Your task to perform on an android device: open app "Google Play Games" (install if not already installed) Image 0: 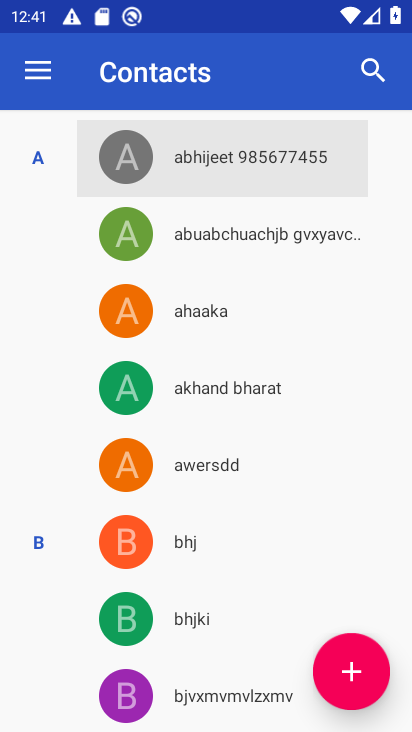
Step 0: press home button
Your task to perform on an android device: open app "Google Play Games" (install if not already installed) Image 1: 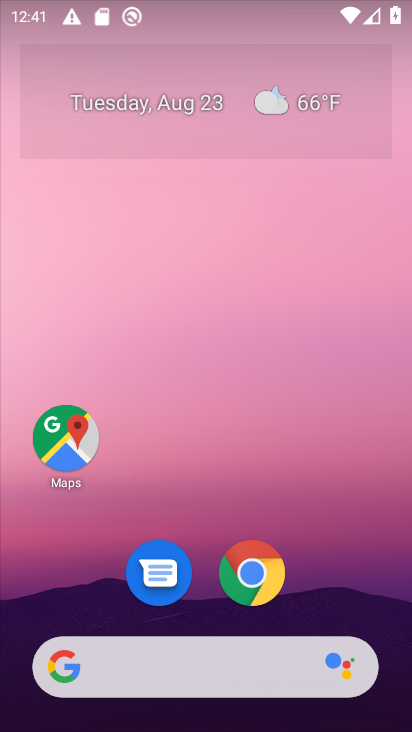
Step 1: drag from (203, 452) to (233, 167)
Your task to perform on an android device: open app "Google Play Games" (install if not already installed) Image 2: 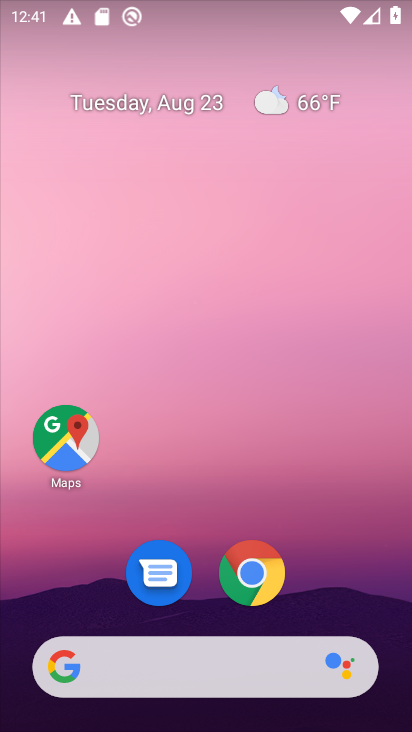
Step 2: drag from (213, 467) to (216, 55)
Your task to perform on an android device: open app "Google Play Games" (install if not already installed) Image 3: 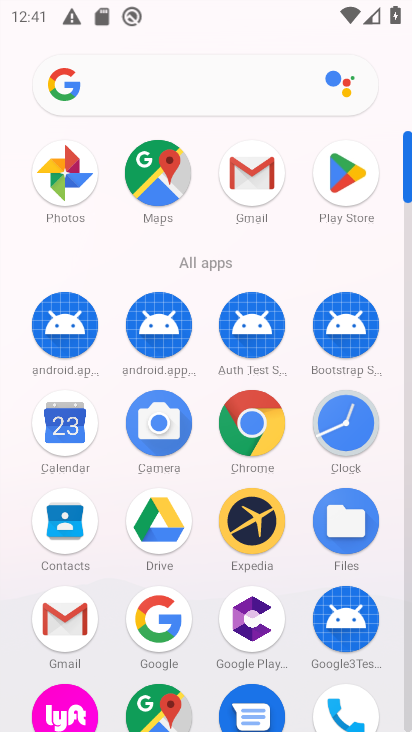
Step 3: click (343, 163)
Your task to perform on an android device: open app "Google Play Games" (install if not already installed) Image 4: 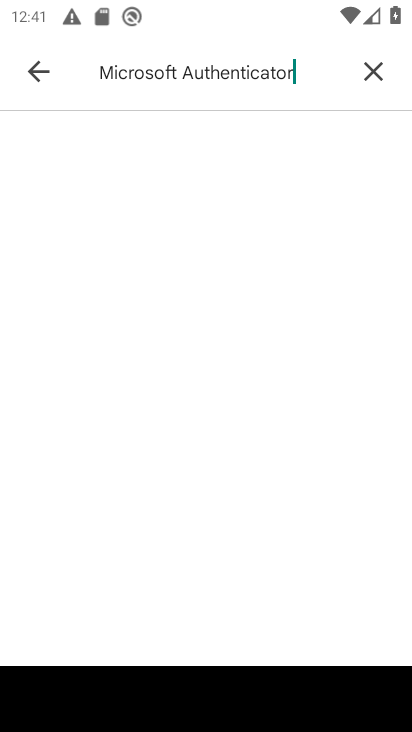
Step 4: click (376, 80)
Your task to perform on an android device: open app "Google Play Games" (install if not already installed) Image 5: 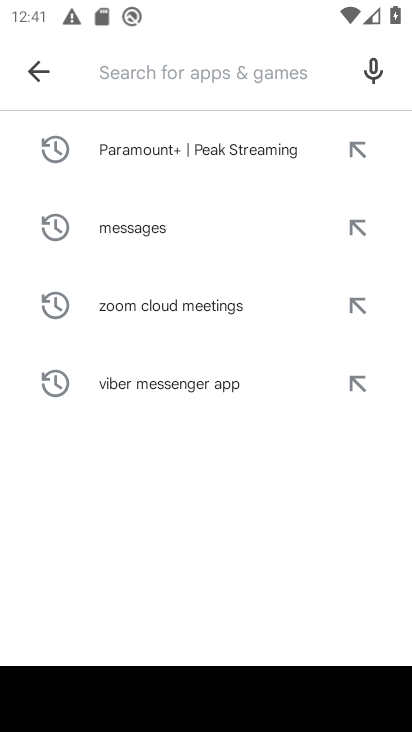
Step 5: type "Google Play Games"
Your task to perform on an android device: open app "Google Play Games" (install if not already installed) Image 6: 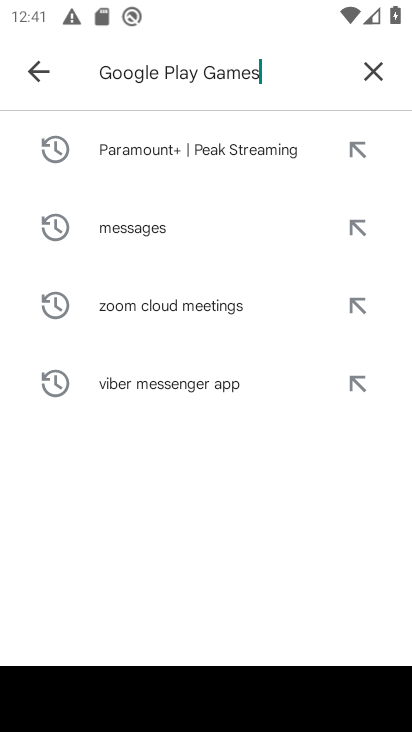
Step 6: type ""
Your task to perform on an android device: open app "Google Play Games" (install if not already installed) Image 7: 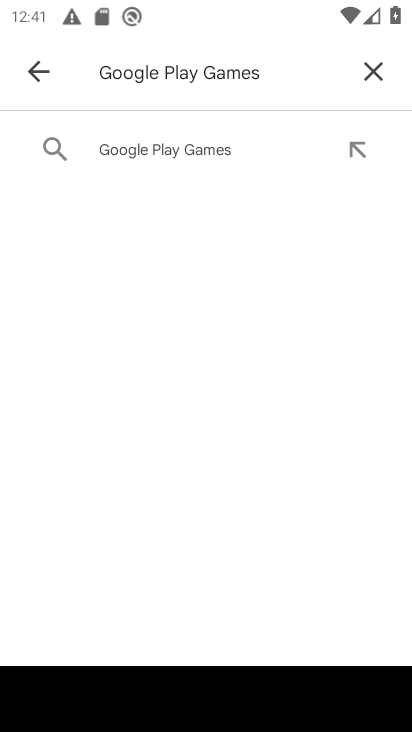
Step 7: click (173, 131)
Your task to perform on an android device: open app "Google Play Games" (install if not already installed) Image 8: 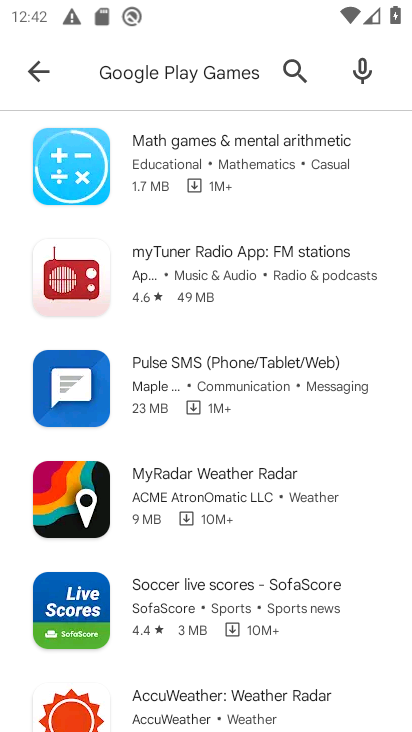
Step 8: task complete